Your task to perform on an android device: toggle pop-ups in chrome Image 0: 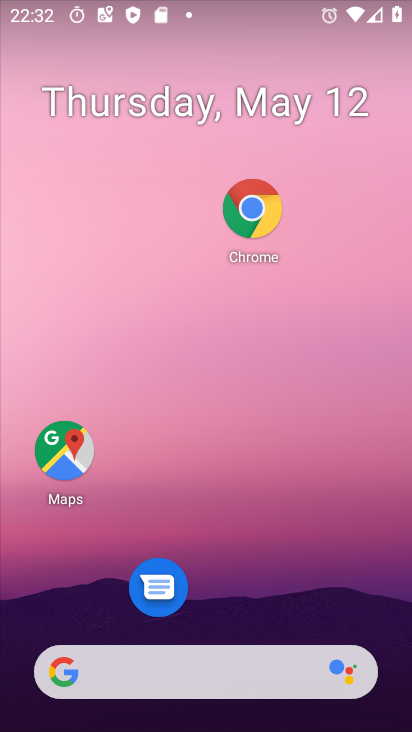
Step 0: drag from (314, 414) to (337, 295)
Your task to perform on an android device: toggle pop-ups in chrome Image 1: 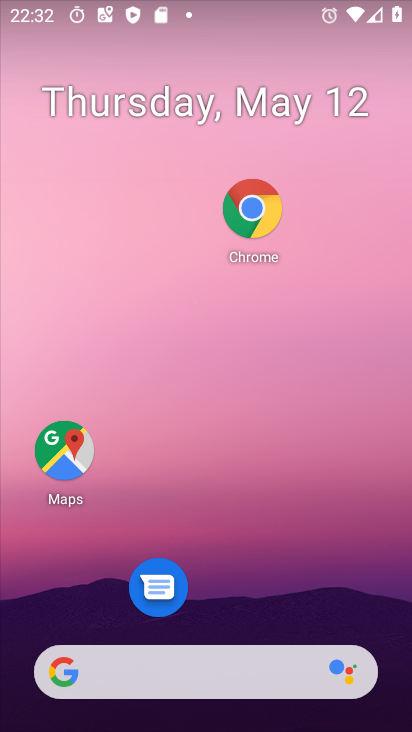
Step 1: click (259, 204)
Your task to perform on an android device: toggle pop-ups in chrome Image 2: 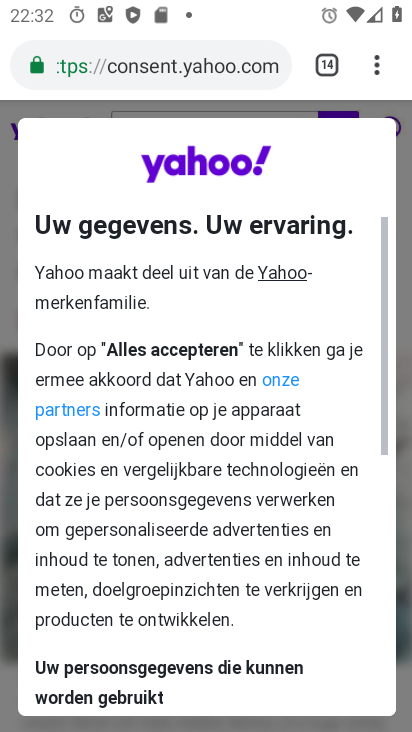
Step 2: click (363, 70)
Your task to perform on an android device: toggle pop-ups in chrome Image 3: 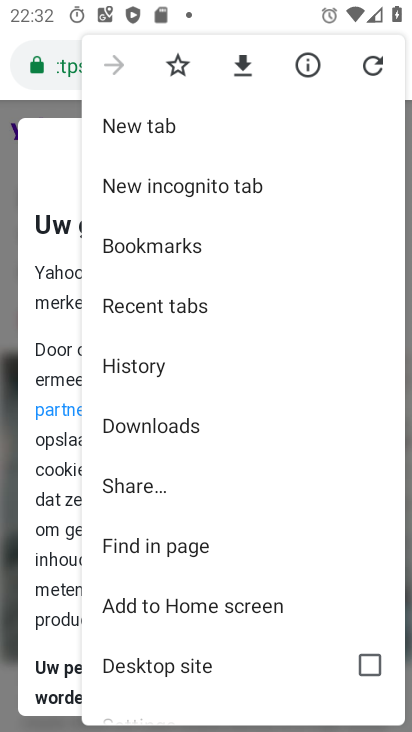
Step 3: drag from (213, 636) to (274, 246)
Your task to perform on an android device: toggle pop-ups in chrome Image 4: 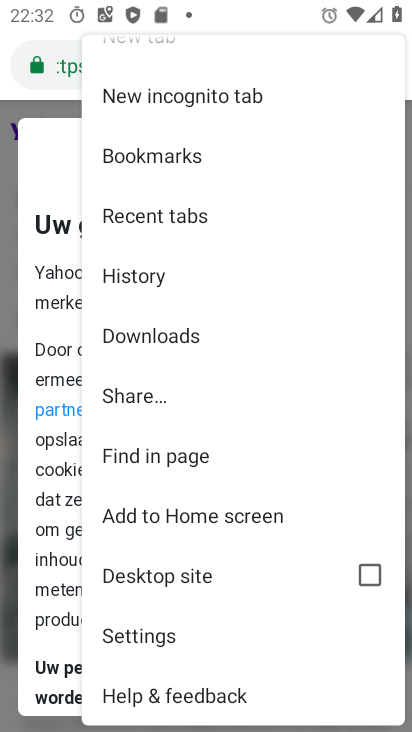
Step 4: click (149, 624)
Your task to perform on an android device: toggle pop-ups in chrome Image 5: 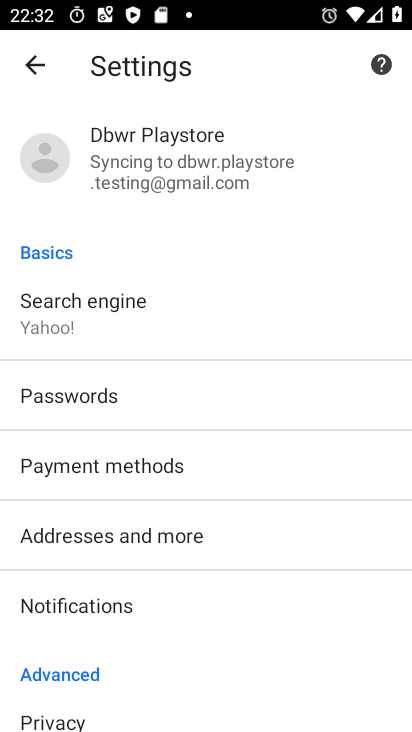
Step 5: drag from (177, 645) to (198, 280)
Your task to perform on an android device: toggle pop-ups in chrome Image 6: 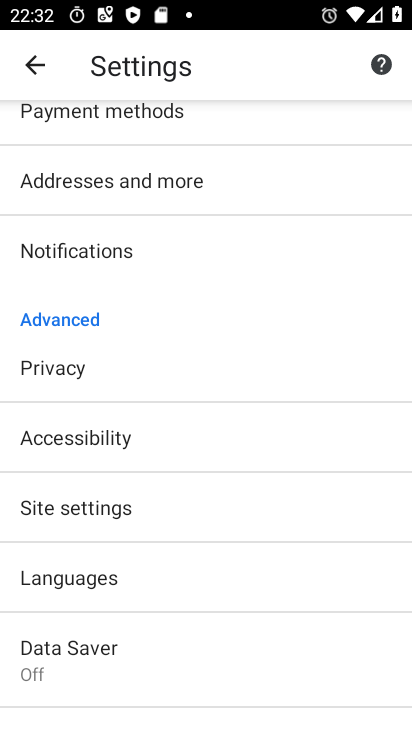
Step 6: drag from (174, 616) to (216, 264)
Your task to perform on an android device: toggle pop-ups in chrome Image 7: 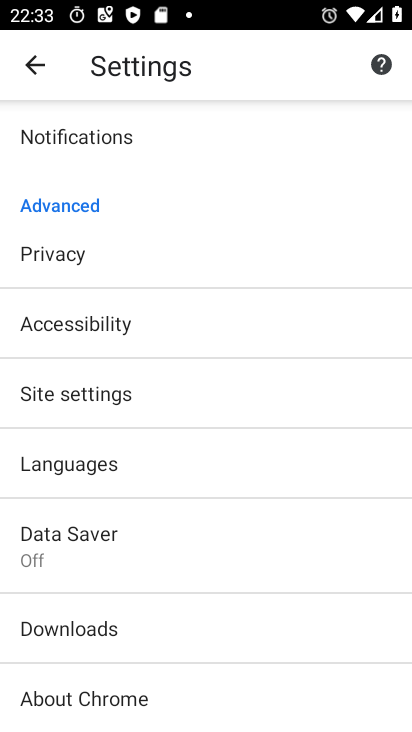
Step 7: click (82, 390)
Your task to perform on an android device: toggle pop-ups in chrome Image 8: 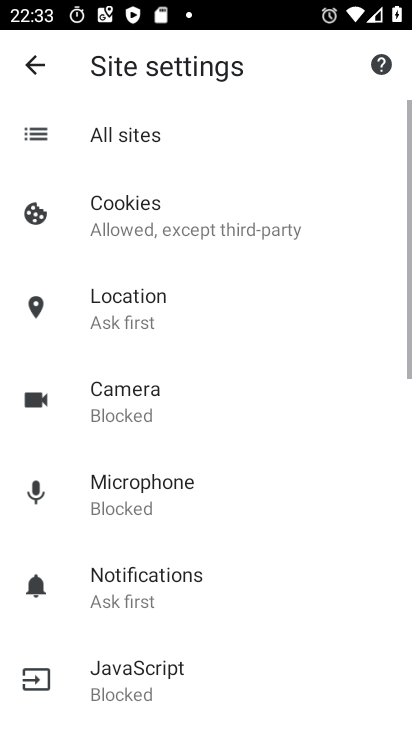
Step 8: drag from (132, 622) to (160, 198)
Your task to perform on an android device: toggle pop-ups in chrome Image 9: 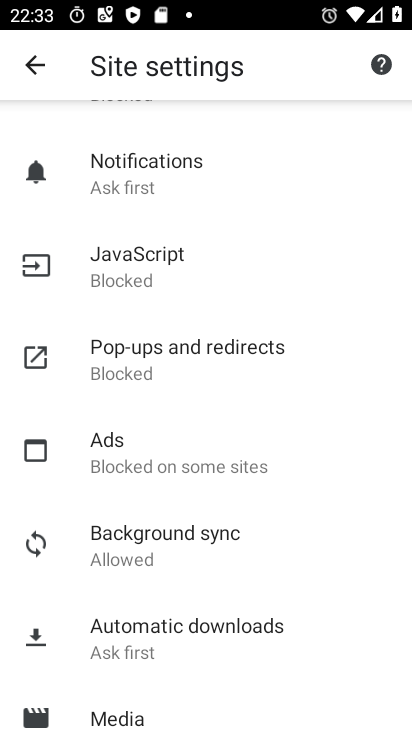
Step 9: click (151, 352)
Your task to perform on an android device: toggle pop-ups in chrome Image 10: 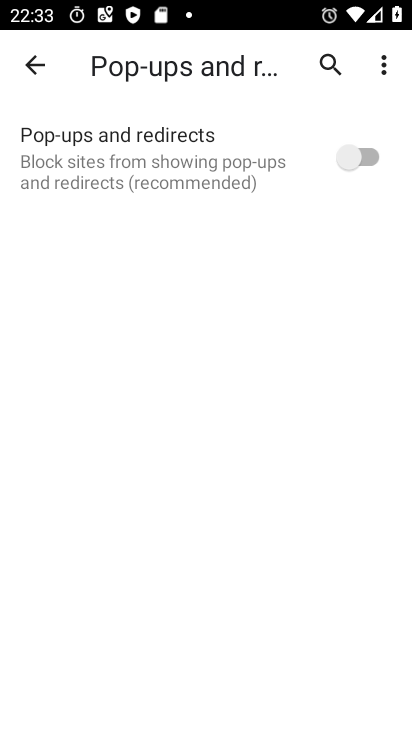
Step 10: click (364, 142)
Your task to perform on an android device: toggle pop-ups in chrome Image 11: 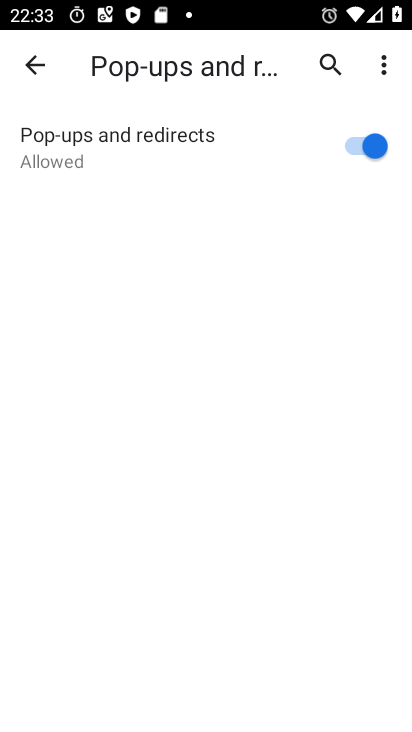
Step 11: task complete